Your task to perform on an android device: Search for seafood restaurants on Google Maps Image 0: 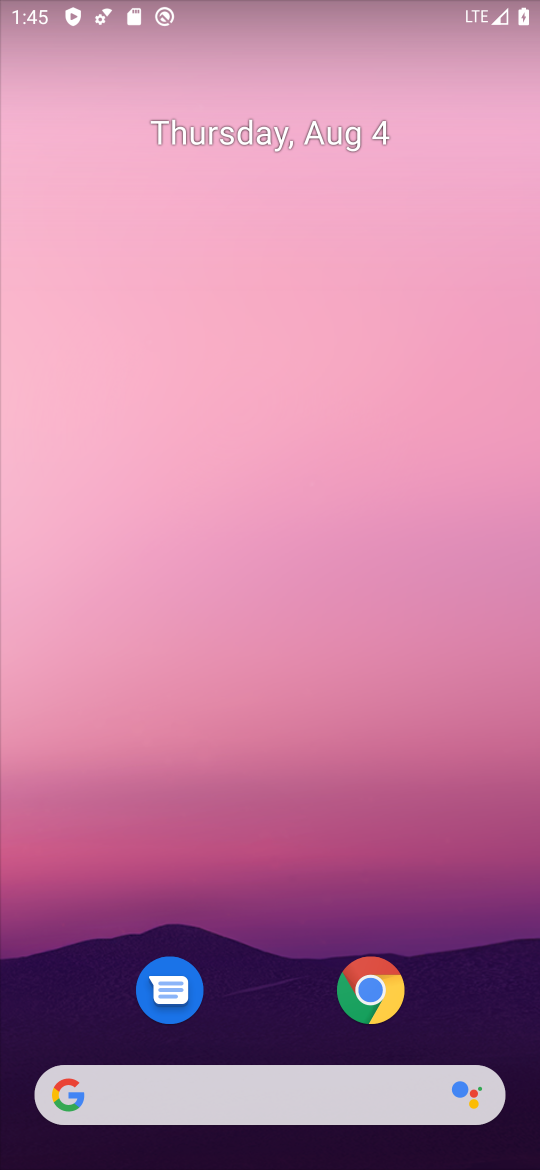
Step 0: drag from (281, 1052) to (258, 283)
Your task to perform on an android device: Search for seafood restaurants on Google Maps Image 1: 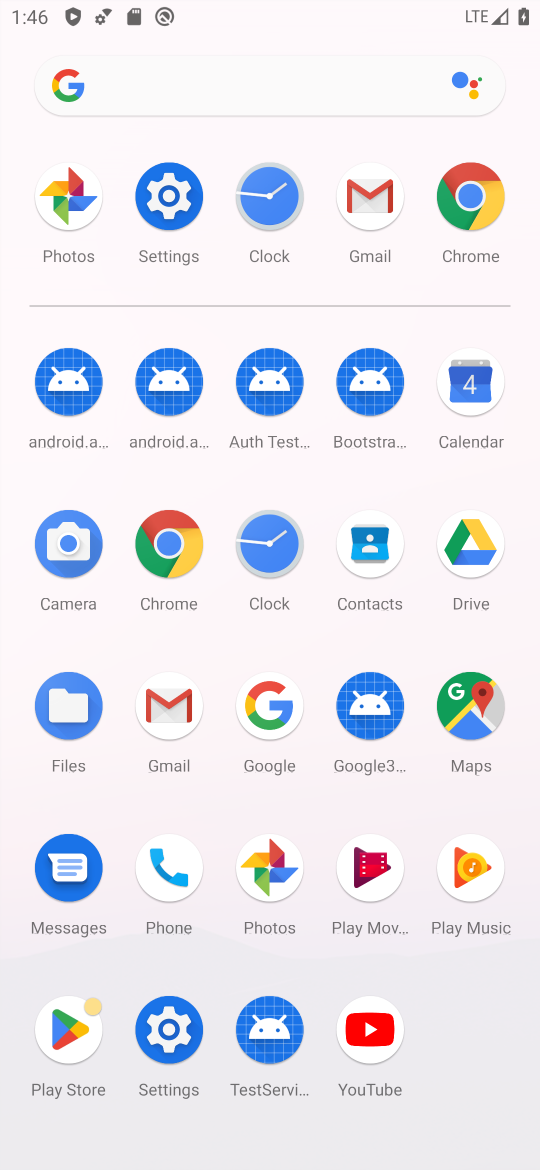
Step 1: click (499, 727)
Your task to perform on an android device: Search for seafood restaurants on Google Maps Image 2: 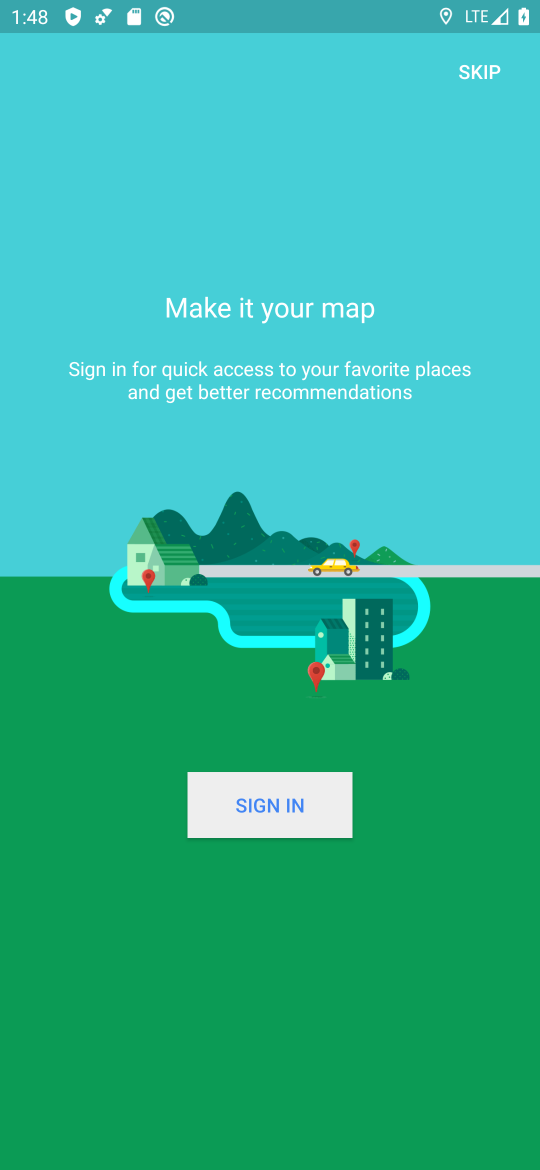
Step 2: task complete